Your task to perform on an android device: toggle airplane mode Image 0: 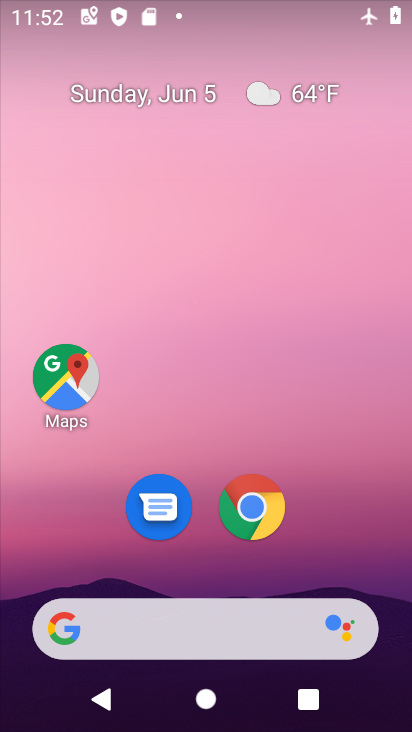
Step 0: drag from (339, 564) to (316, 115)
Your task to perform on an android device: toggle airplane mode Image 1: 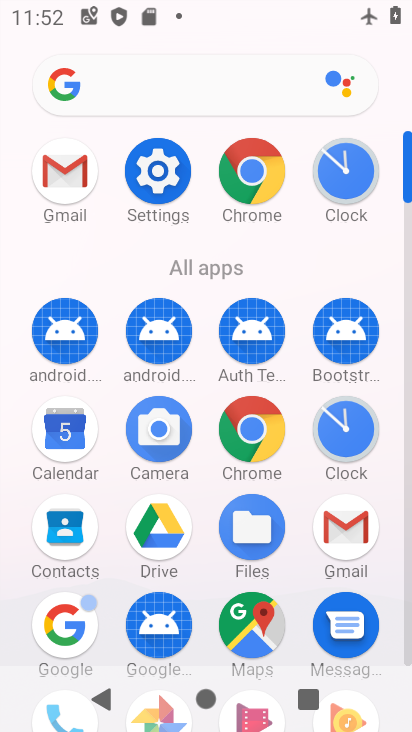
Step 1: click (143, 160)
Your task to perform on an android device: toggle airplane mode Image 2: 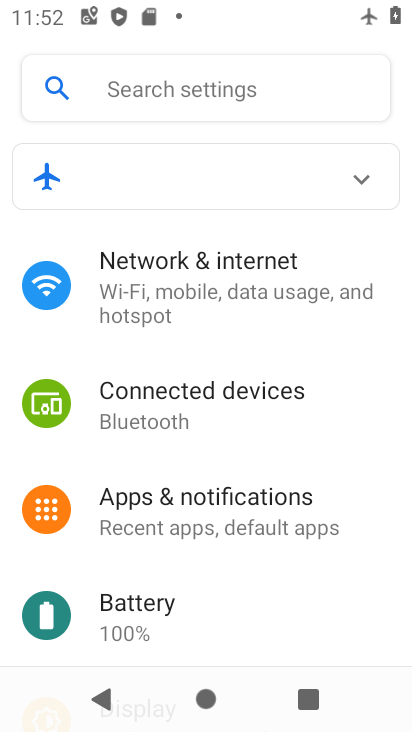
Step 2: click (156, 277)
Your task to perform on an android device: toggle airplane mode Image 3: 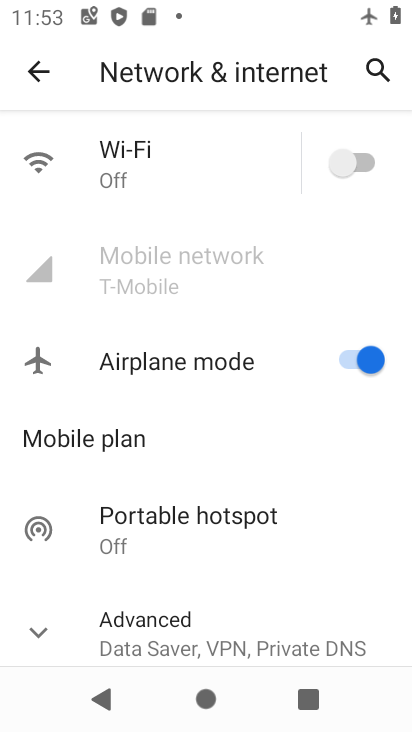
Step 3: click (347, 353)
Your task to perform on an android device: toggle airplane mode Image 4: 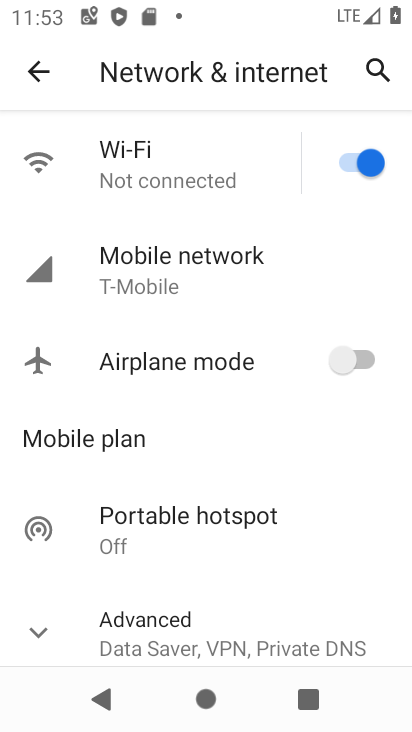
Step 4: task complete